Your task to perform on an android device: change the clock style Image 0: 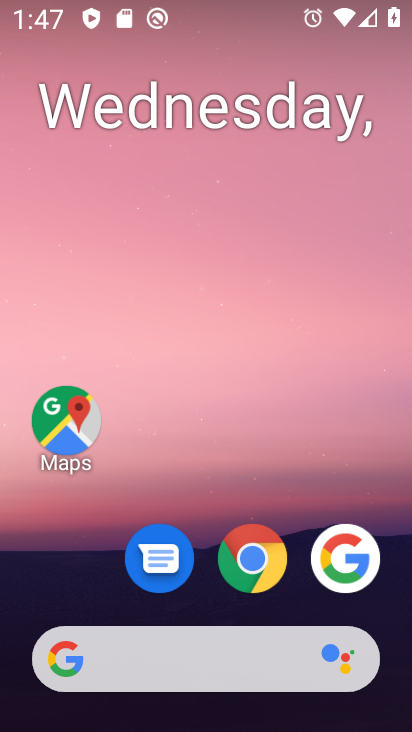
Step 0: drag from (378, 481) to (321, 2)
Your task to perform on an android device: change the clock style Image 1: 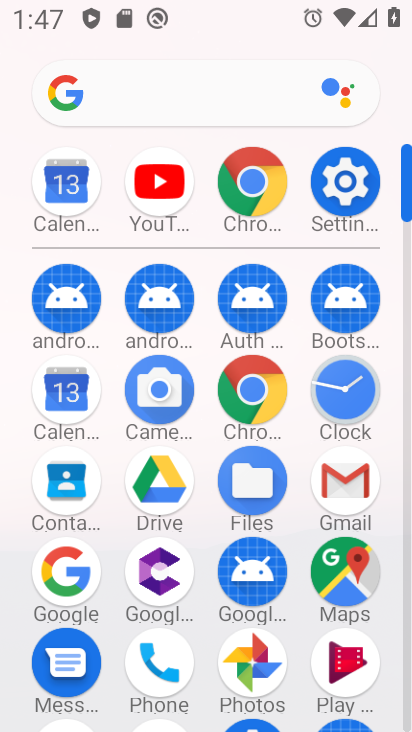
Step 1: click (358, 413)
Your task to perform on an android device: change the clock style Image 2: 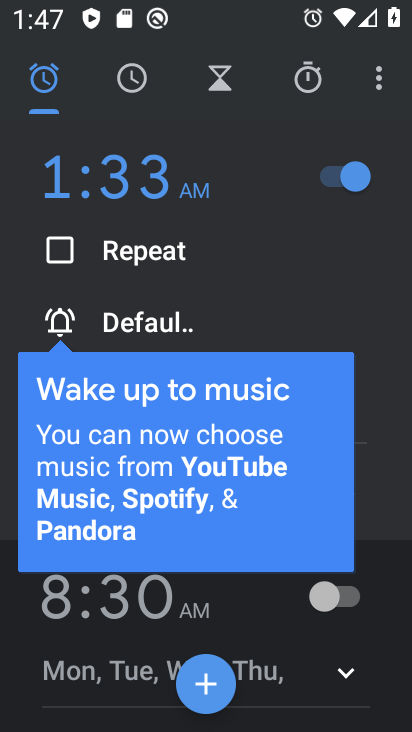
Step 2: click (384, 72)
Your task to perform on an android device: change the clock style Image 3: 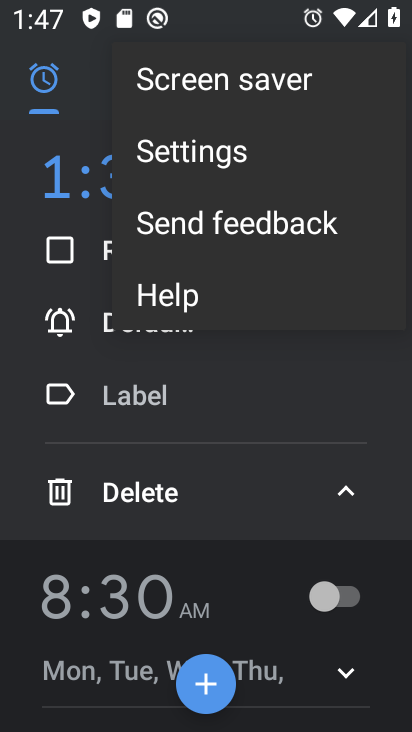
Step 3: click (257, 159)
Your task to perform on an android device: change the clock style Image 4: 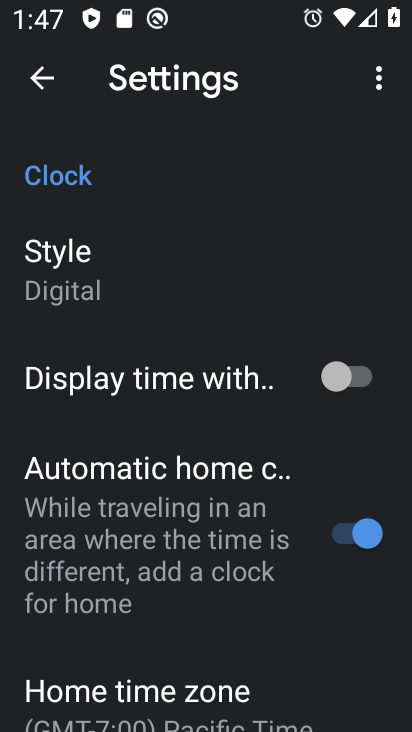
Step 4: click (205, 278)
Your task to perform on an android device: change the clock style Image 5: 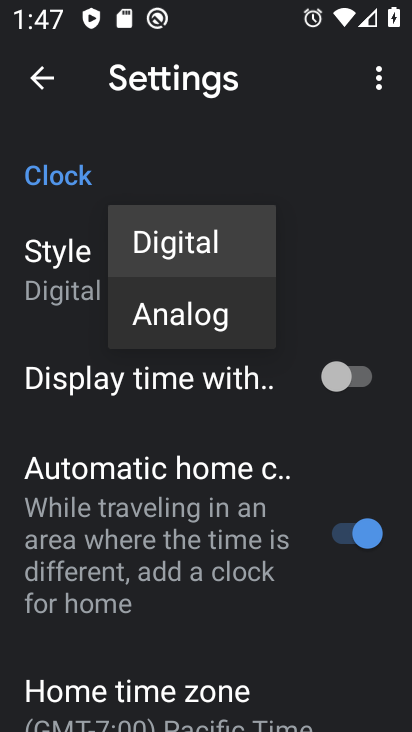
Step 5: click (216, 319)
Your task to perform on an android device: change the clock style Image 6: 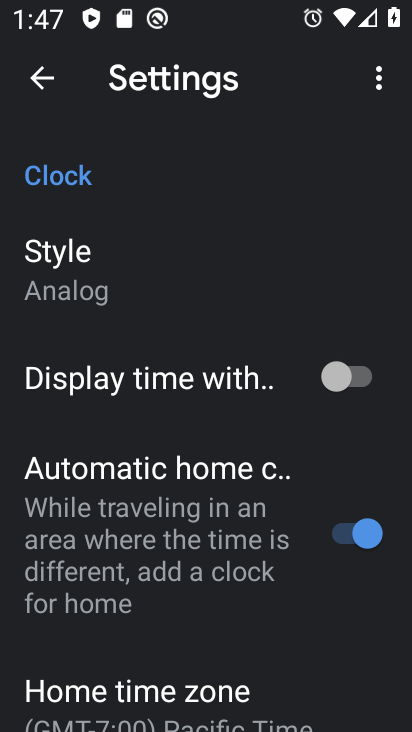
Step 6: task complete